Your task to perform on an android device: Show me the alarms in the clock app Image 0: 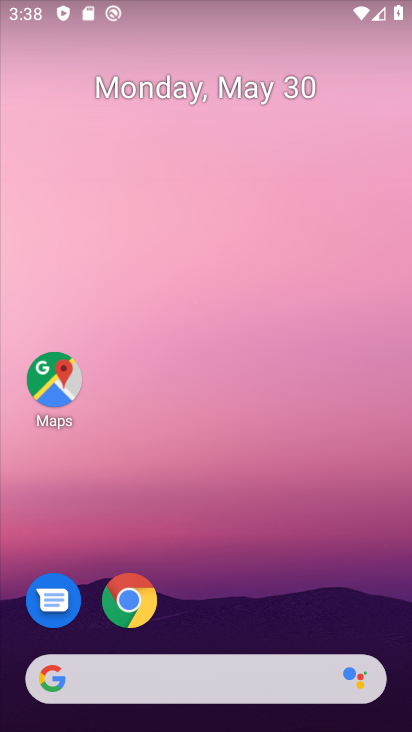
Step 0: drag from (232, 618) to (227, 160)
Your task to perform on an android device: Show me the alarms in the clock app Image 1: 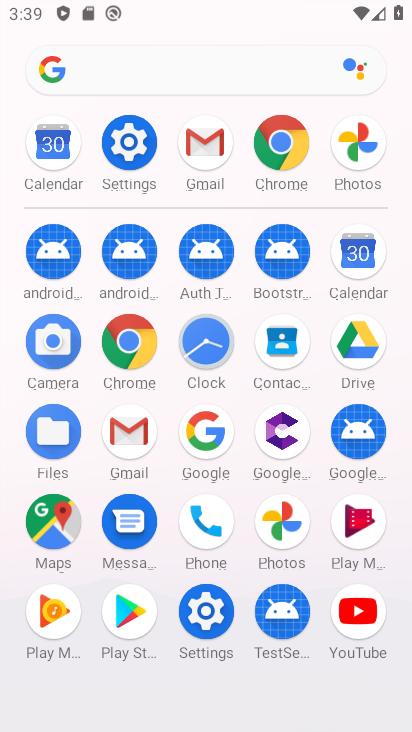
Step 1: click (199, 359)
Your task to perform on an android device: Show me the alarms in the clock app Image 2: 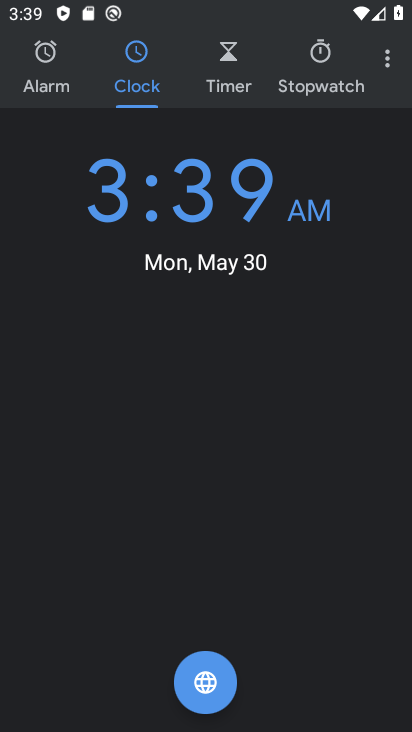
Step 2: click (68, 84)
Your task to perform on an android device: Show me the alarms in the clock app Image 3: 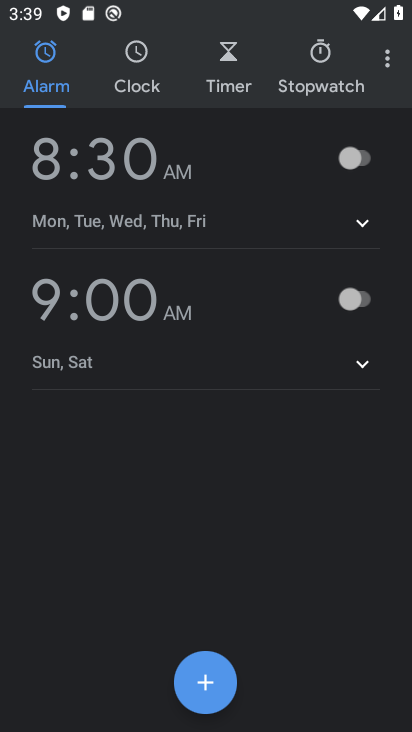
Step 3: task complete